Your task to perform on an android device: turn off notifications in google photos Image 0: 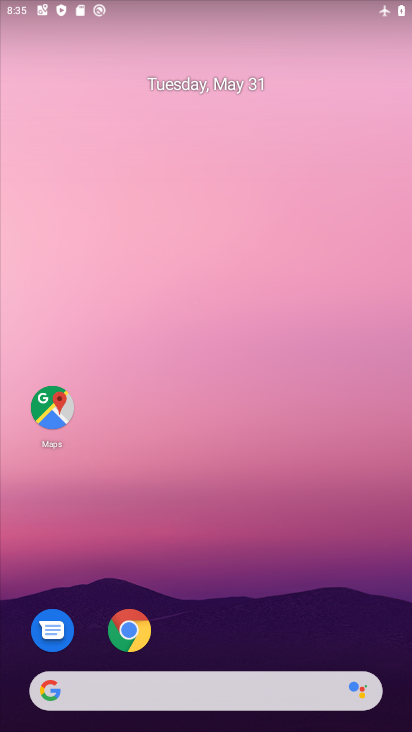
Step 0: drag from (243, 675) to (237, 324)
Your task to perform on an android device: turn off notifications in google photos Image 1: 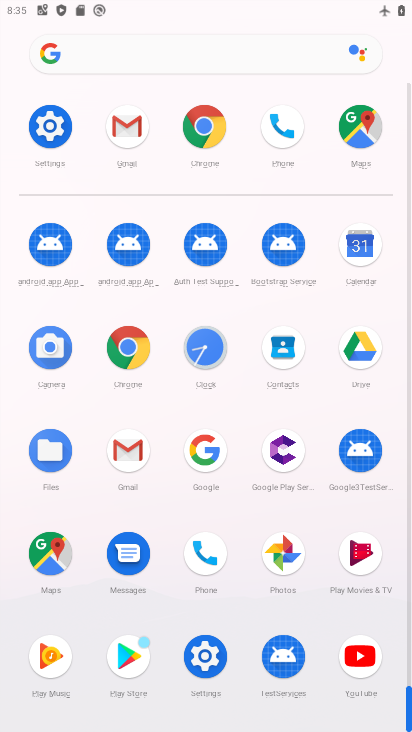
Step 1: click (271, 542)
Your task to perform on an android device: turn off notifications in google photos Image 2: 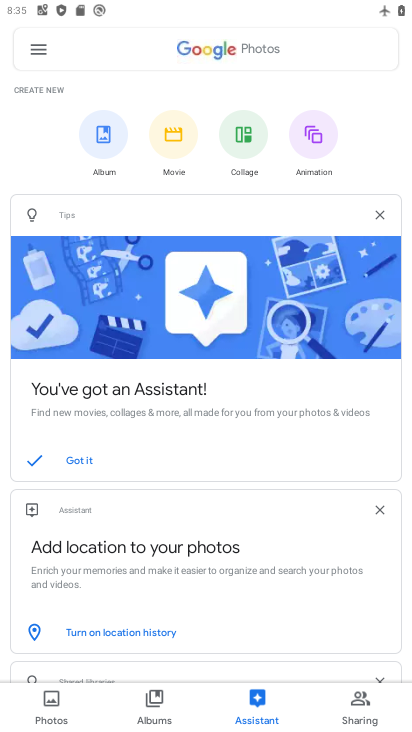
Step 2: click (42, 49)
Your task to perform on an android device: turn off notifications in google photos Image 3: 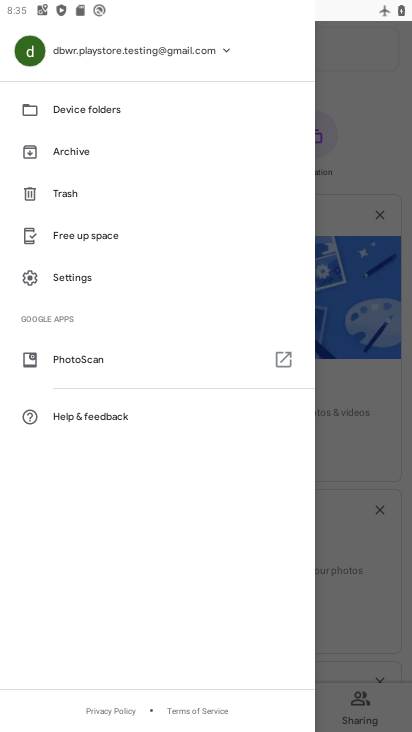
Step 3: click (69, 277)
Your task to perform on an android device: turn off notifications in google photos Image 4: 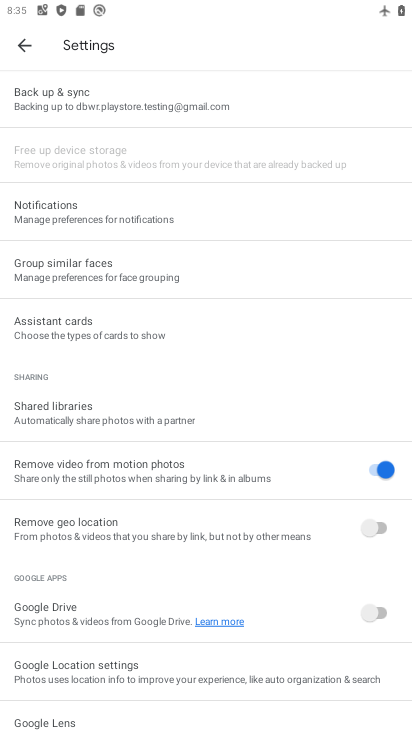
Step 4: click (111, 215)
Your task to perform on an android device: turn off notifications in google photos Image 5: 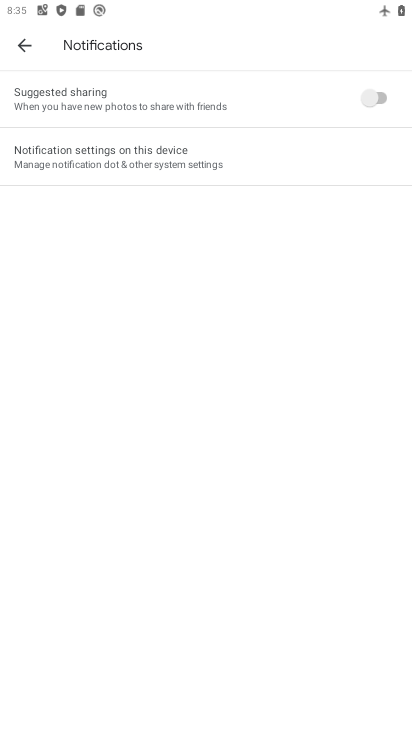
Step 5: click (295, 159)
Your task to perform on an android device: turn off notifications in google photos Image 6: 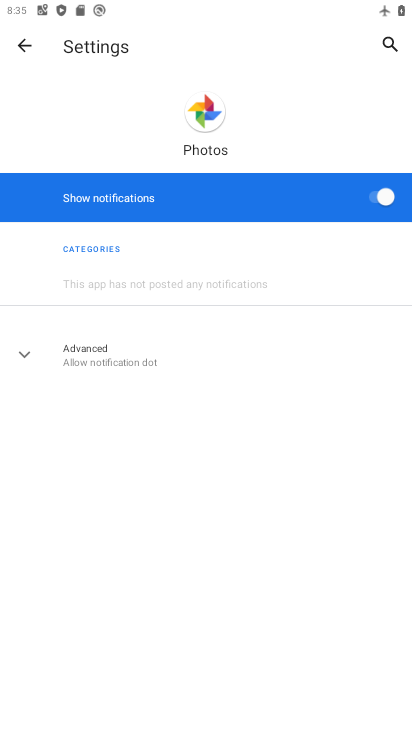
Step 6: click (376, 196)
Your task to perform on an android device: turn off notifications in google photos Image 7: 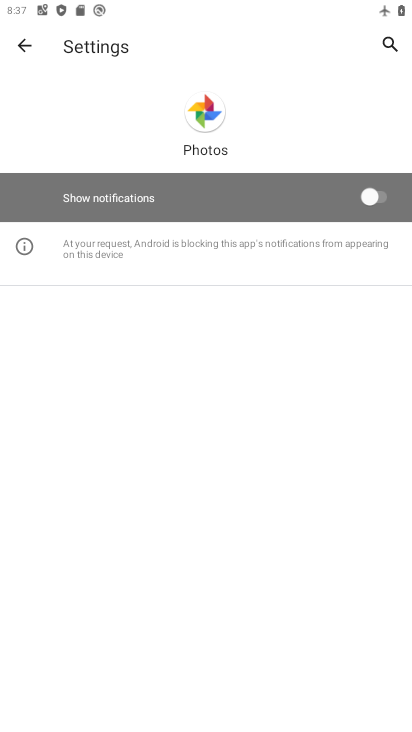
Step 7: task complete